Your task to perform on an android device: Show me the alarms in the clock app Image 0: 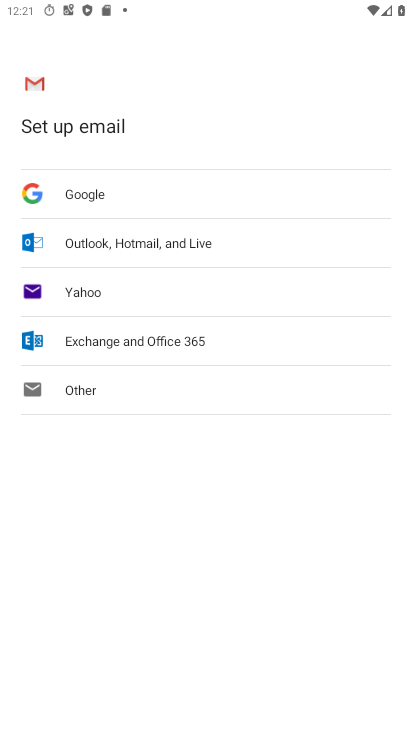
Step 0: press home button
Your task to perform on an android device: Show me the alarms in the clock app Image 1: 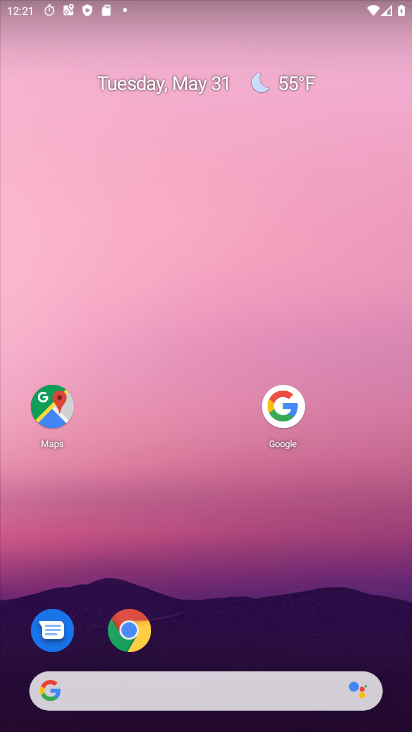
Step 1: drag from (201, 686) to (305, 216)
Your task to perform on an android device: Show me the alarms in the clock app Image 2: 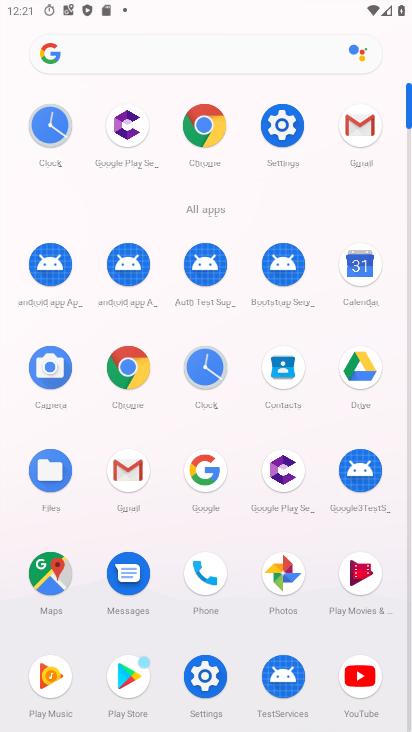
Step 2: click (207, 374)
Your task to perform on an android device: Show me the alarms in the clock app Image 3: 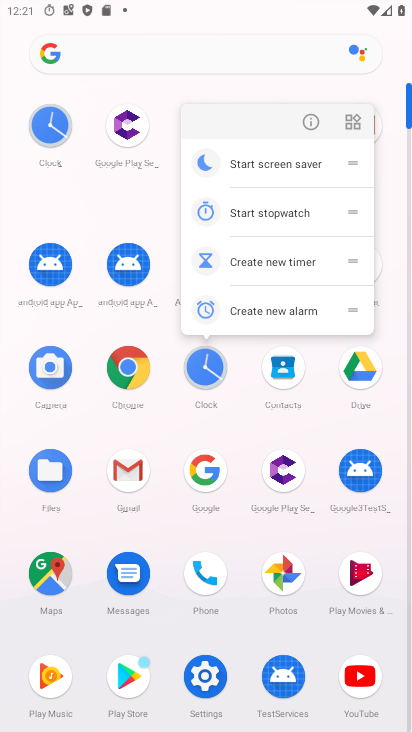
Step 3: click (210, 365)
Your task to perform on an android device: Show me the alarms in the clock app Image 4: 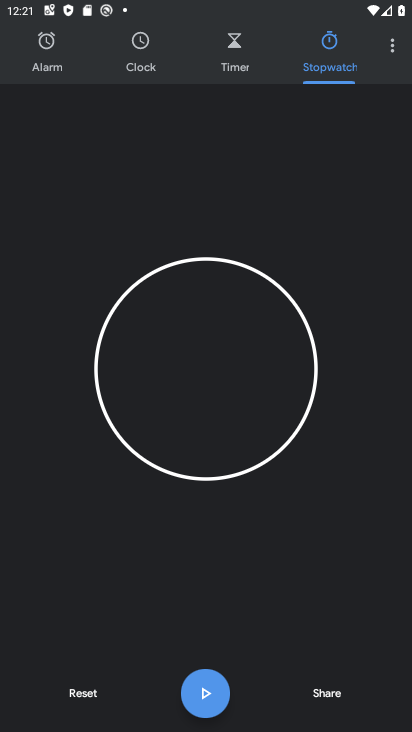
Step 4: click (46, 56)
Your task to perform on an android device: Show me the alarms in the clock app Image 5: 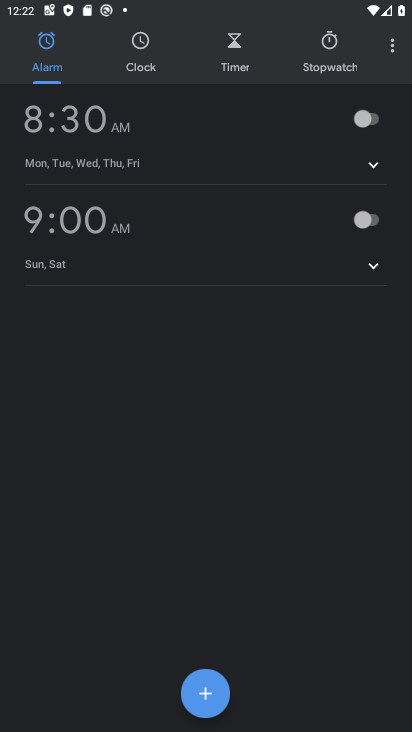
Step 5: task complete